Your task to perform on an android device: Check the weather Image 0: 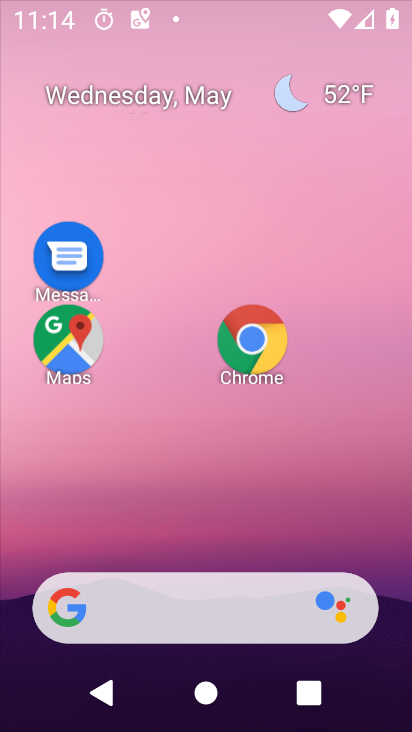
Step 0: drag from (222, 514) to (200, 67)
Your task to perform on an android device: Check the weather Image 1: 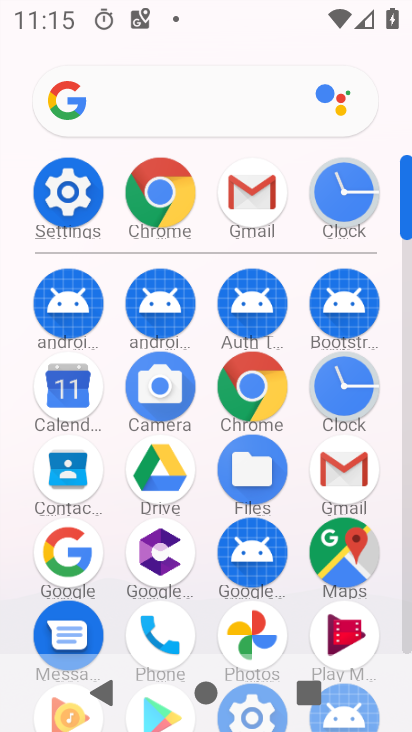
Step 1: click (72, 549)
Your task to perform on an android device: Check the weather Image 2: 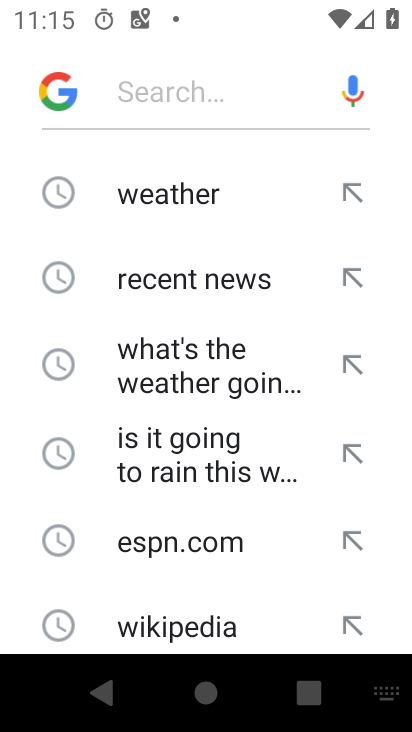
Step 2: click (188, 193)
Your task to perform on an android device: Check the weather Image 3: 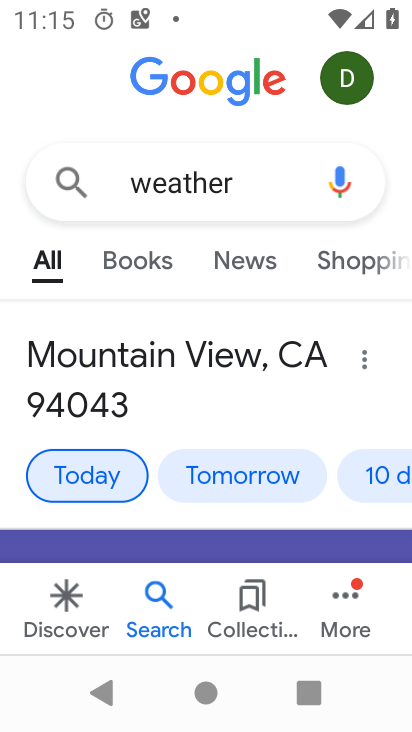
Step 3: task complete